Your task to perform on an android device: read, delete, or share a saved page in the chrome app Image 0: 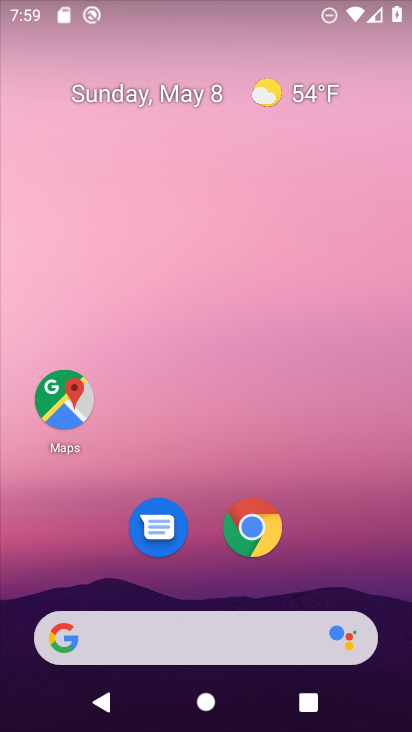
Step 0: click (251, 529)
Your task to perform on an android device: read, delete, or share a saved page in the chrome app Image 1: 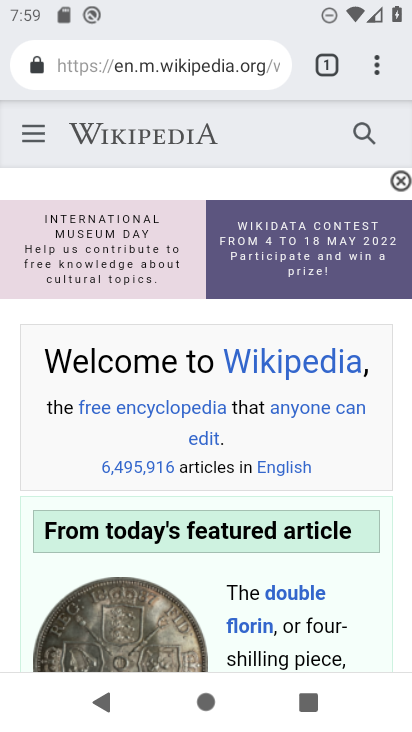
Step 1: task complete